Your task to perform on an android device: Do I have any events tomorrow? Image 0: 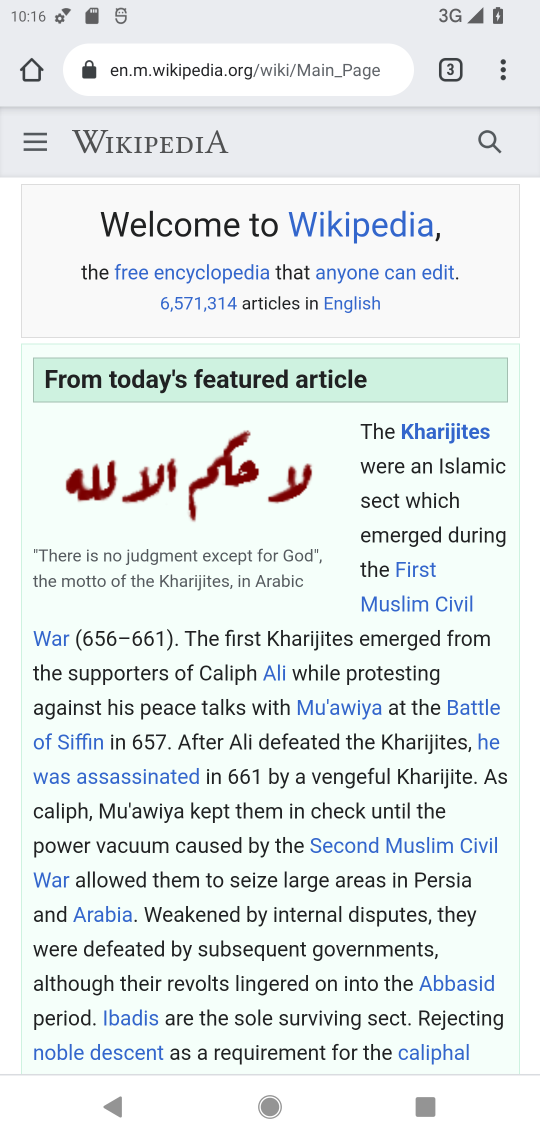
Step 0: press home button
Your task to perform on an android device: Do I have any events tomorrow? Image 1: 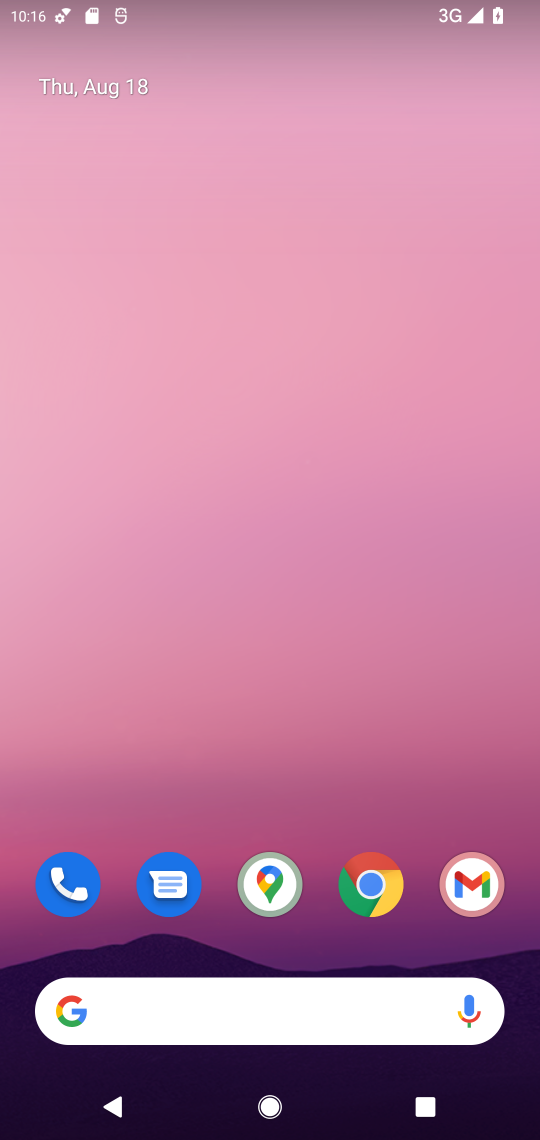
Step 1: click (97, 97)
Your task to perform on an android device: Do I have any events tomorrow? Image 2: 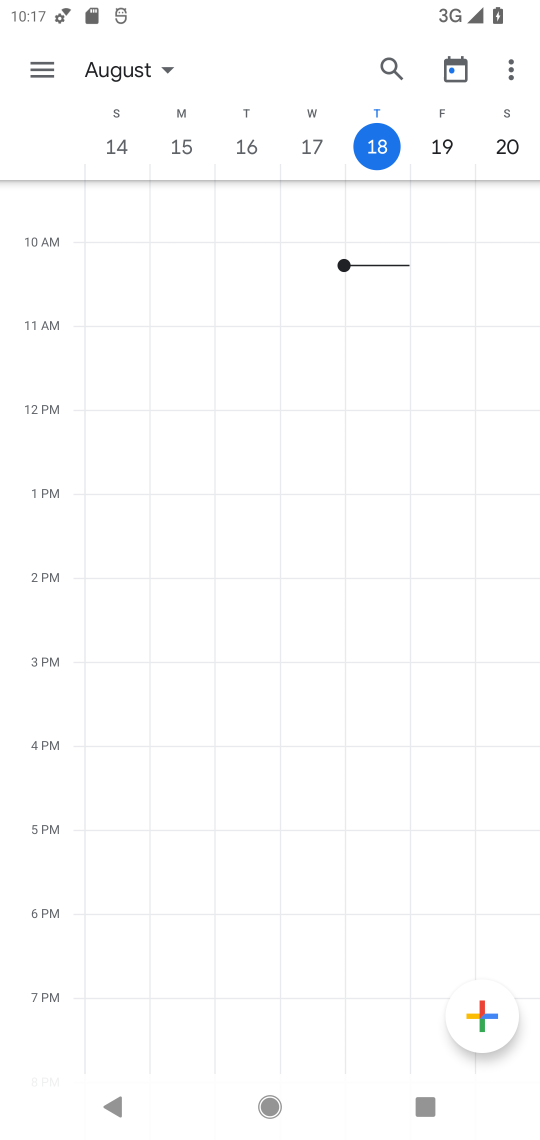
Step 2: click (31, 63)
Your task to perform on an android device: Do I have any events tomorrow? Image 3: 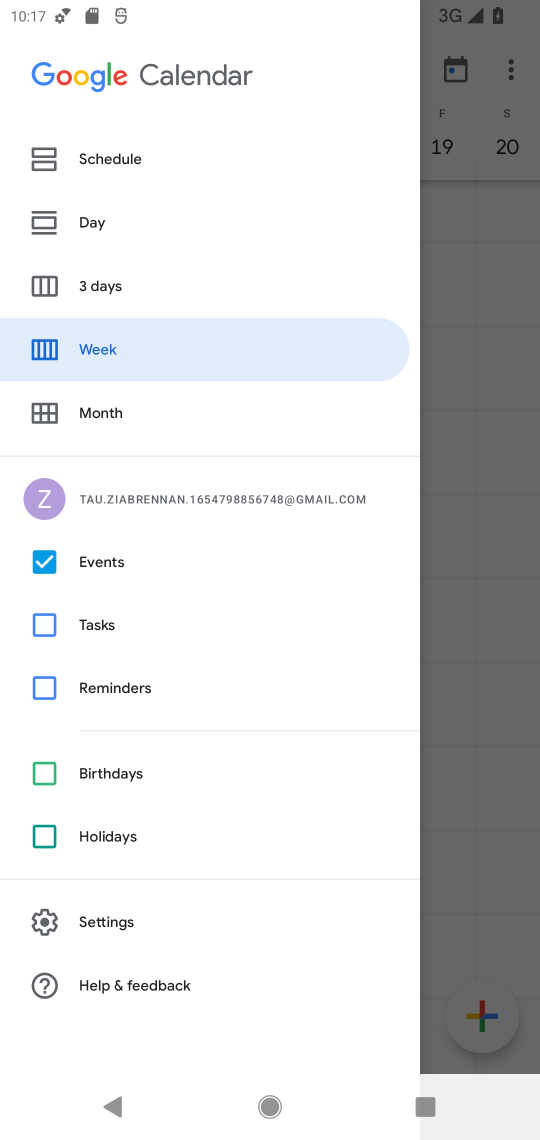
Step 3: click (95, 221)
Your task to perform on an android device: Do I have any events tomorrow? Image 4: 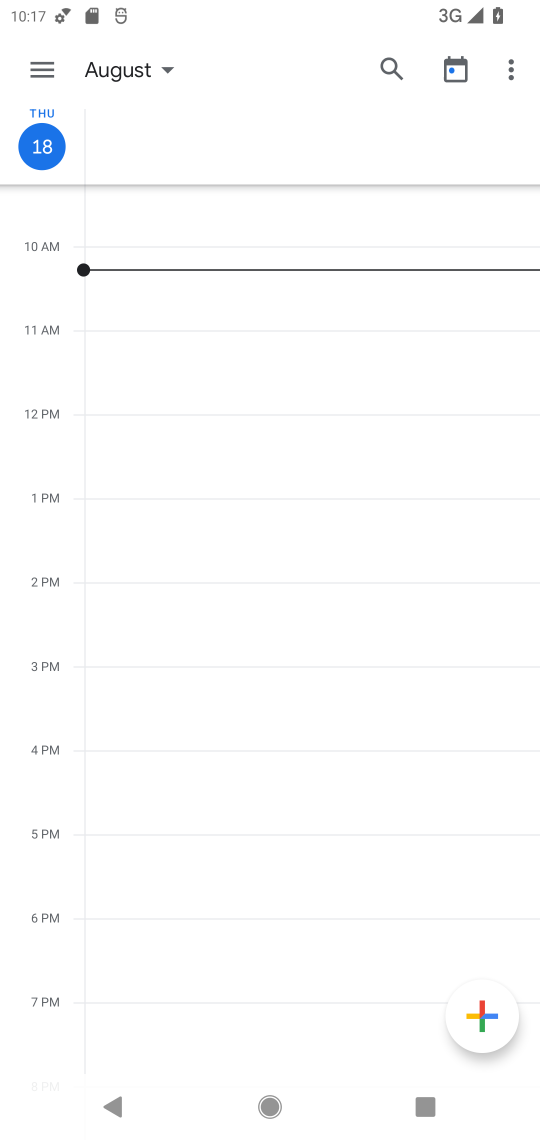
Step 4: click (125, 76)
Your task to perform on an android device: Do I have any events tomorrow? Image 5: 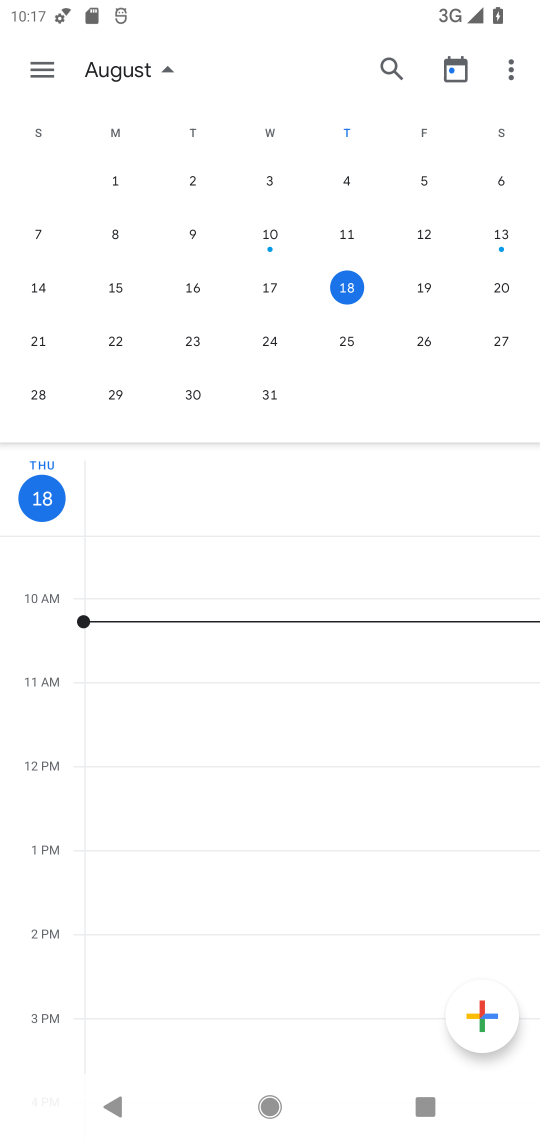
Step 5: click (427, 278)
Your task to perform on an android device: Do I have any events tomorrow? Image 6: 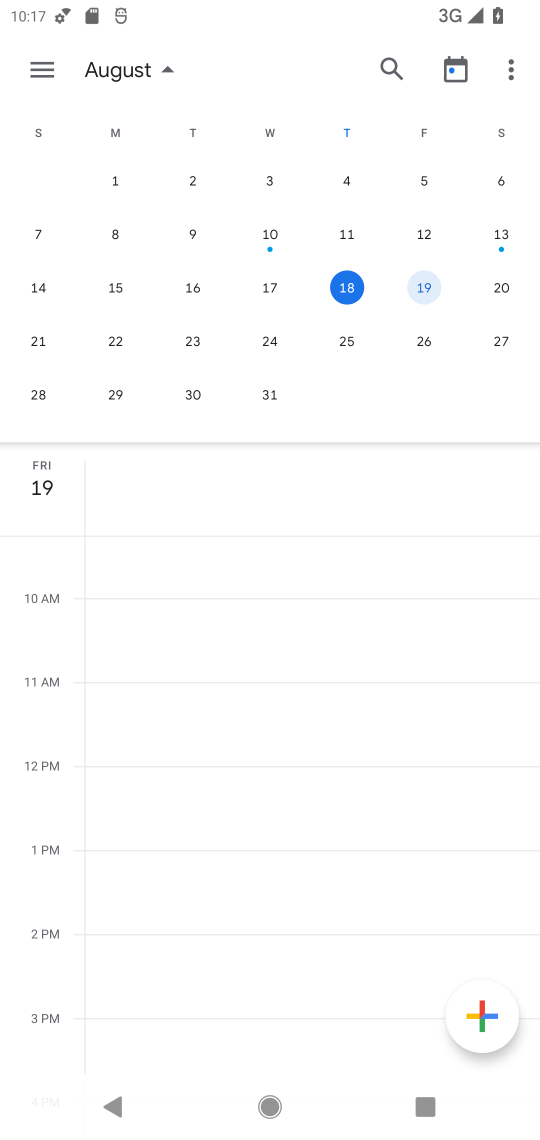
Step 6: task complete